Your task to perform on an android device: Do I have any events tomorrow? Image 0: 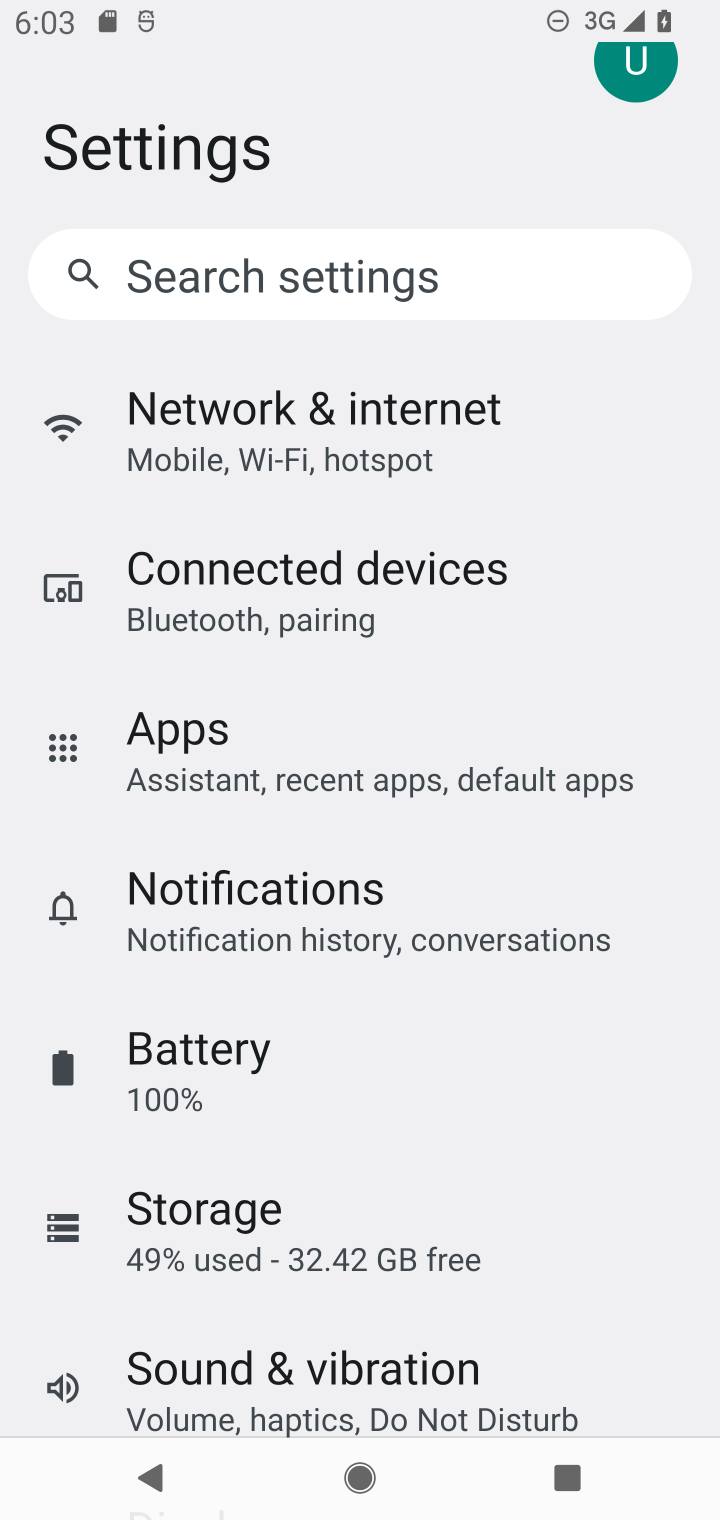
Step 0: press home button
Your task to perform on an android device: Do I have any events tomorrow? Image 1: 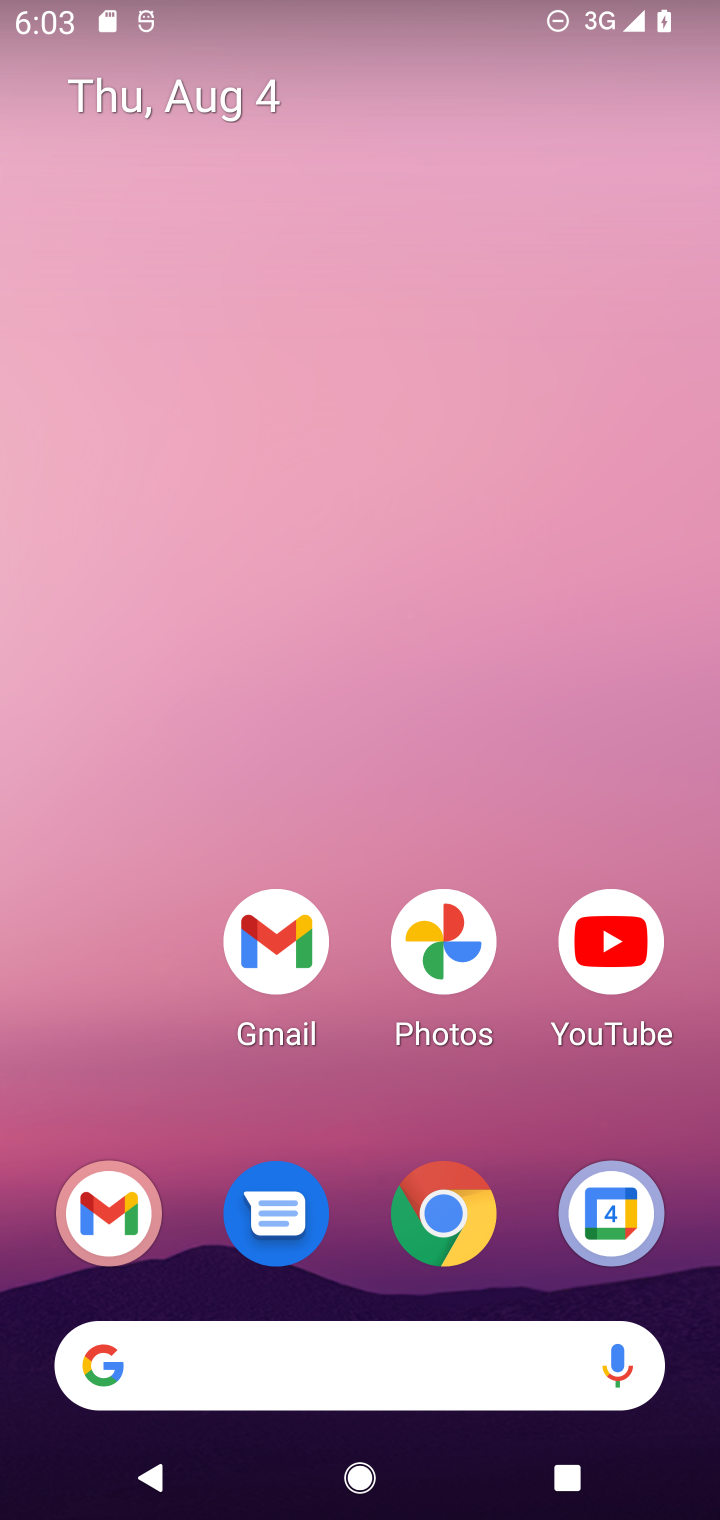
Step 1: drag from (184, 1091) to (206, 412)
Your task to perform on an android device: Do I have any events tomorrow? Image 2: 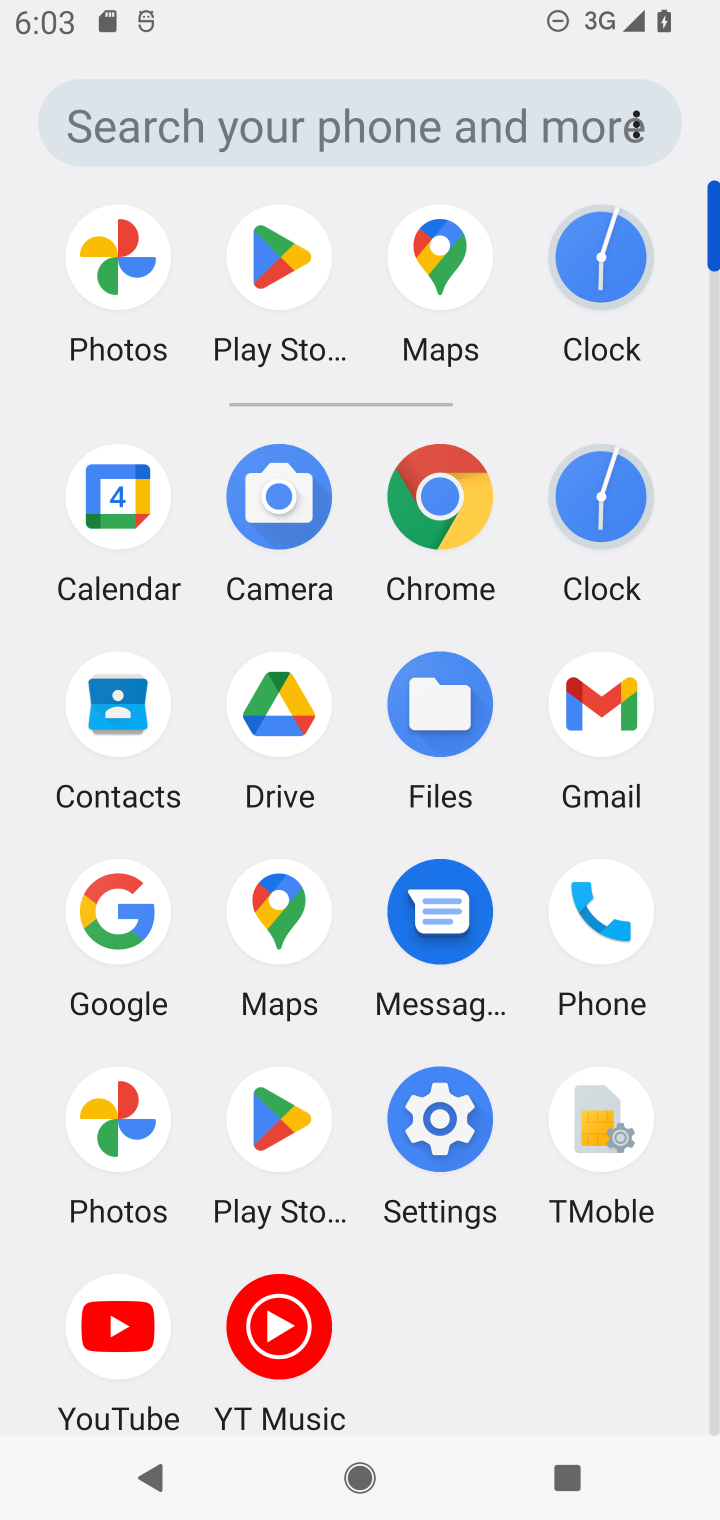
Step 2: click (105, 519)
Your task to perform on an android device: Do I have any events tomorrow? Image 3: 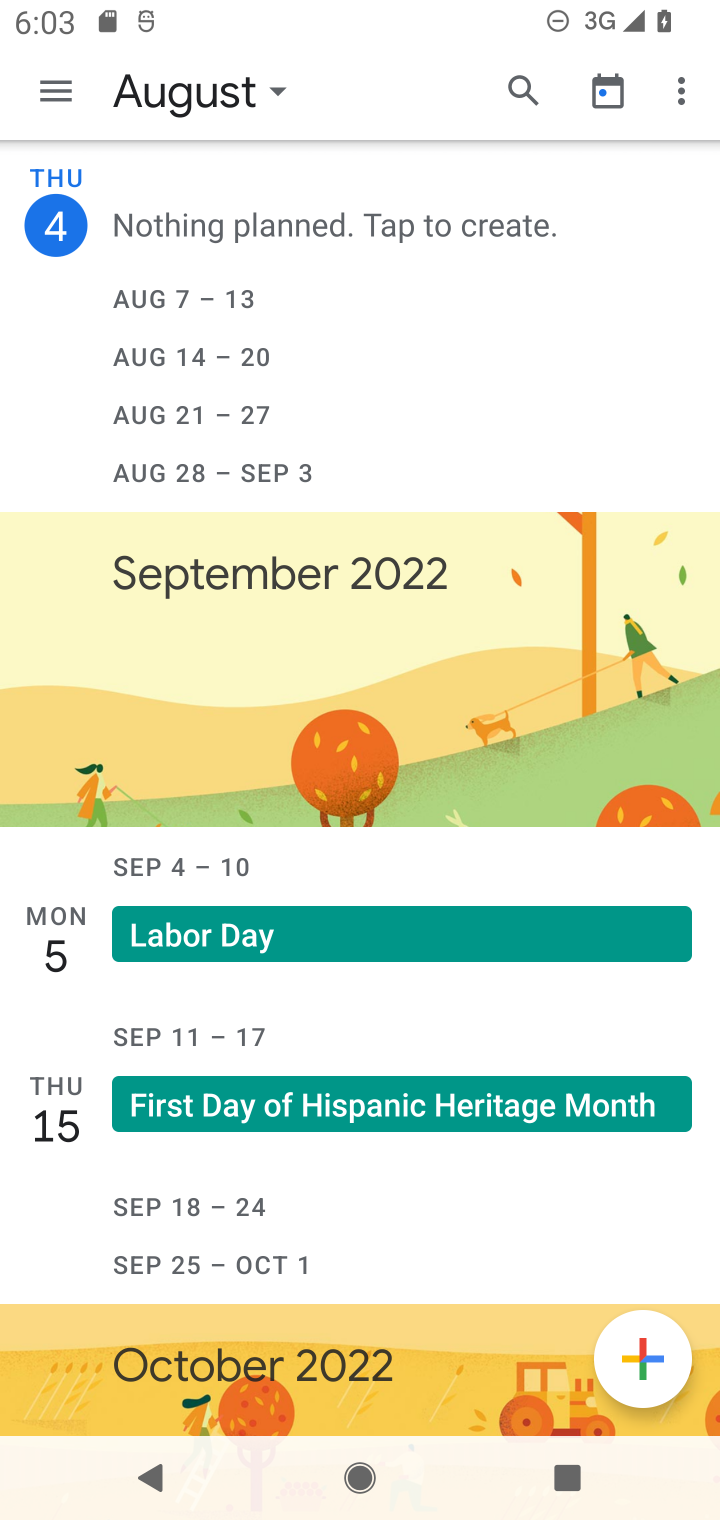
Step 3: task complete